Your task to perform on an android device: Go to accessibility settings Image 0: 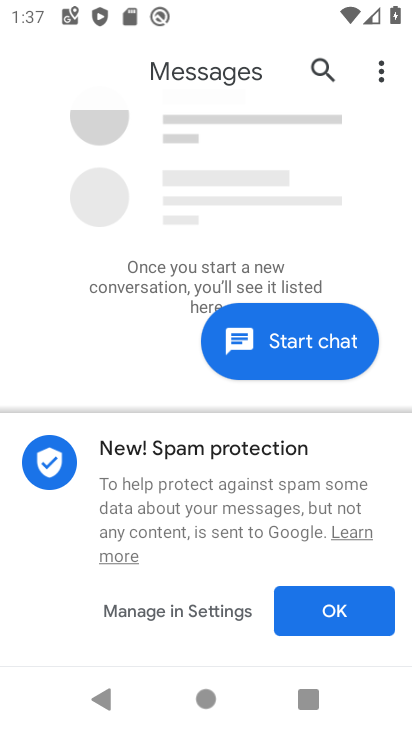
Step 0: press home button
Your task to perform on an android device: Go to accessibility settings Image 1: 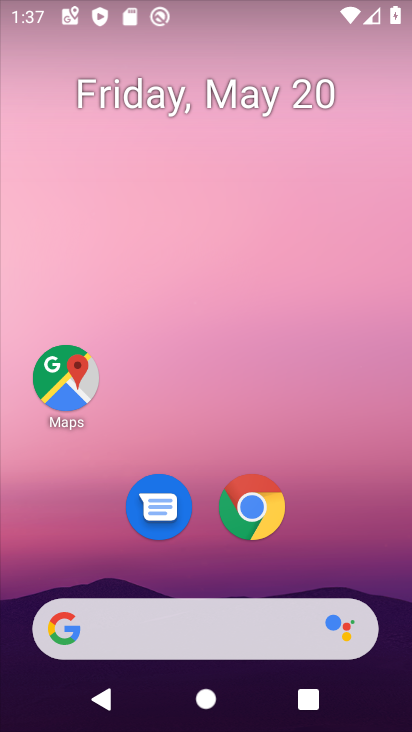
Step 1: drag from (240, 723) to (275, 50)
Your task to perform on an android device: Go to accessibility settings Image 2: 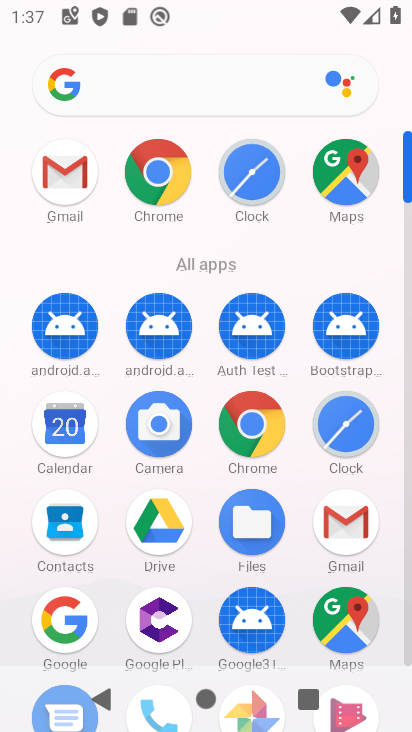
Step 2: drag from (217, 614) to (226, 263)
Your task to perform on an android device: Go to accessibility settings Image 3: 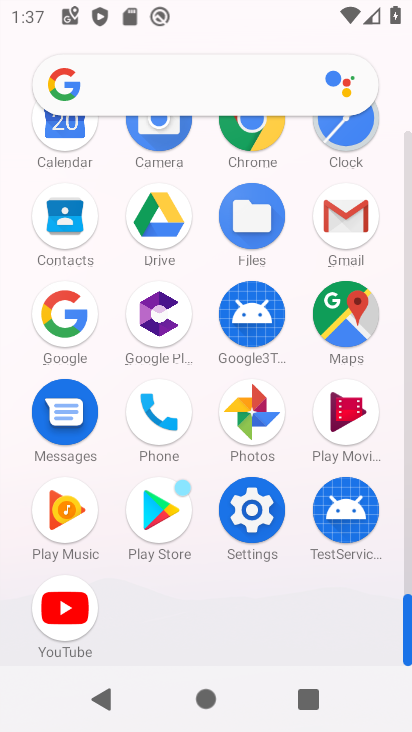
Step 3: click (257, 512)
Your task to perform on an android device: Go to accessibility settings Image 4: 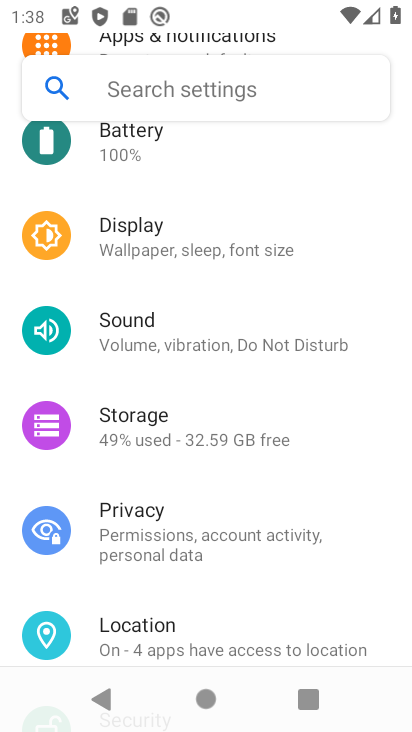
Step 4: drag from (157, 619) to (160, 172)
Your task to perform on an android device: Go to accessibility settings Image 5: 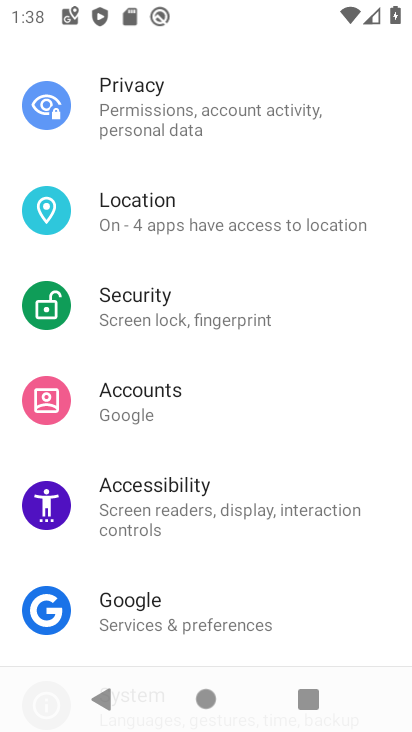
Step 5: click (145, 497)
Your task to perform on an android device: Go to accessibility settings Image 6: 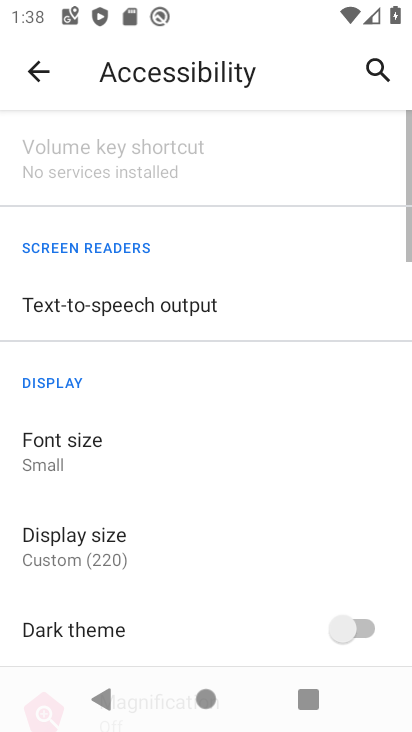
Step 6: task complete